Your task to perform on an android device: turn on priority inbox in the gmail app Image 0: 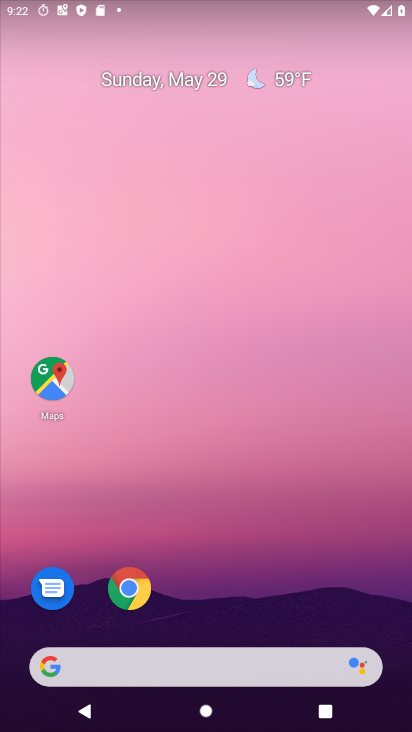
Step 0: drag from (214, 618) to (324, 6)
Your task to perform on an android device: turn on priority inbox in the gmail app Image 1: 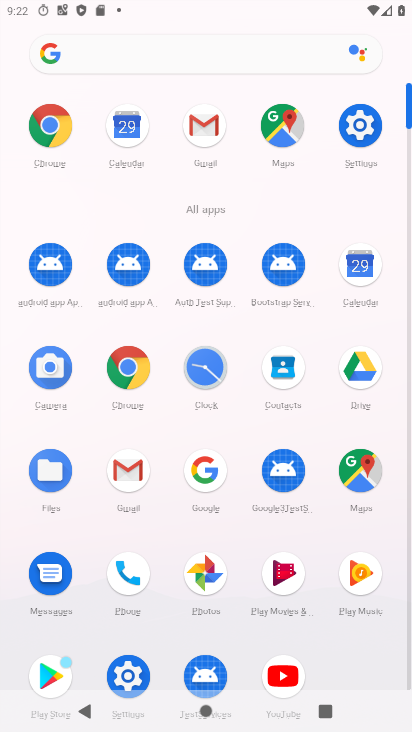
Step 1: click (140, 485)
Your task to perform on an android device: turn on priority inbox in the gmail app Image 2: 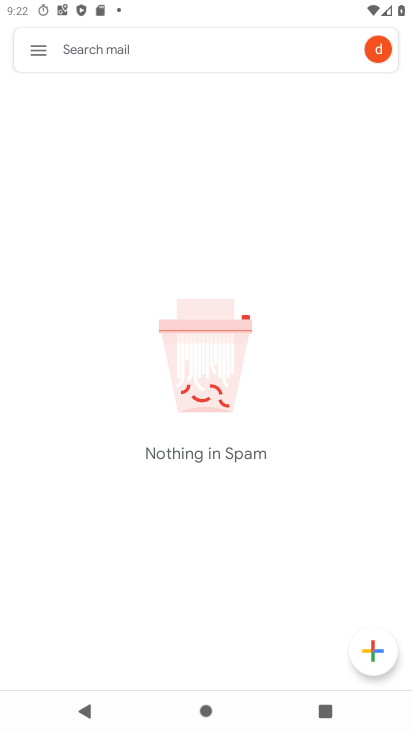
Step 2: click (35, 45)
Your task to perform on an android device: turn on priority inbox in the gmail app Image 3: 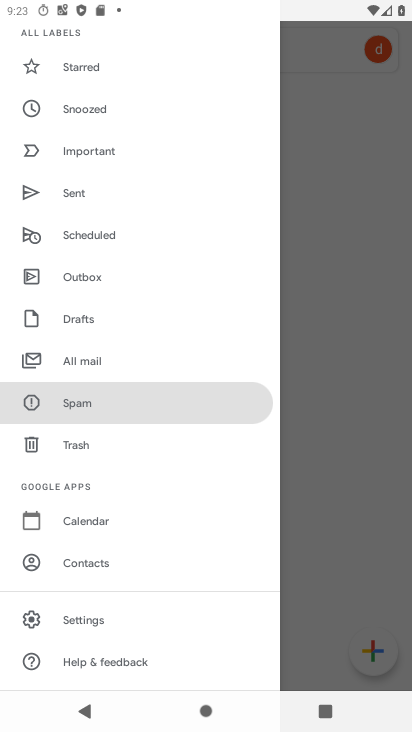
Step 3: click (84, 626)
Your task to perform on an android device: turn on priority inbox in the gmail app Image 4: 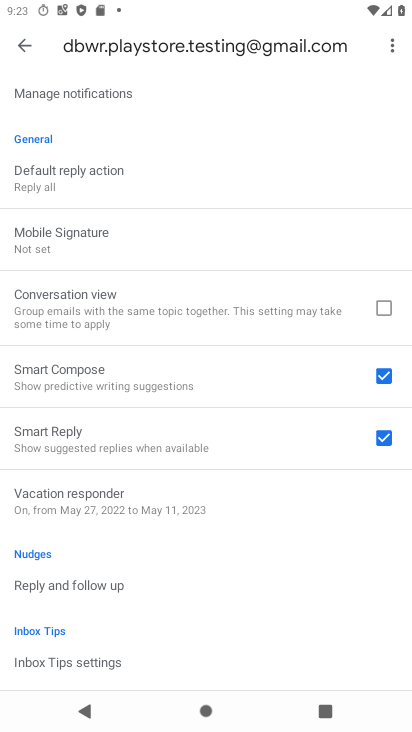
Step 4: drag from (134, 140) to (151, 578)
Your task to perform on an android device: turn on priority inbox in the gmail app Image 5: 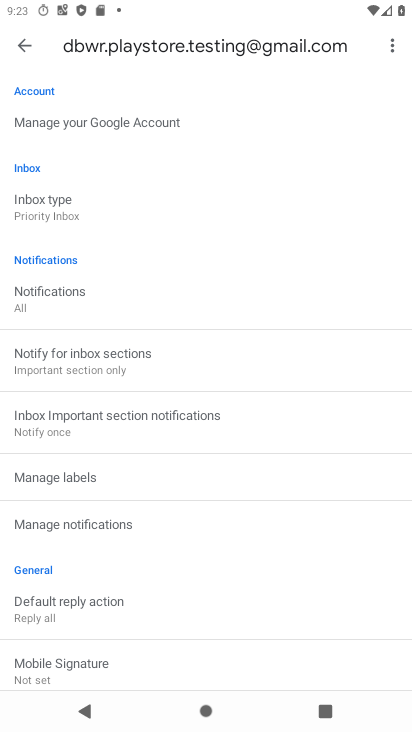
Step 5: click (68, 213)
Your task to perform on an android device: turn on priority inbox in the gmail app Image 6: 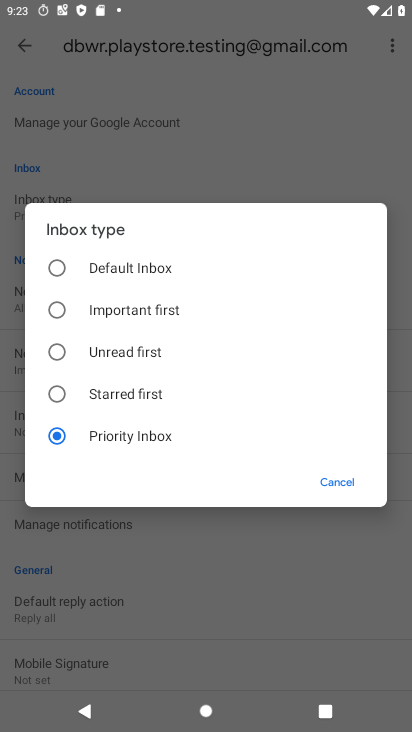
Step 6: task complete